Your task to perform on an android device: Open Wikipedia Image 0: 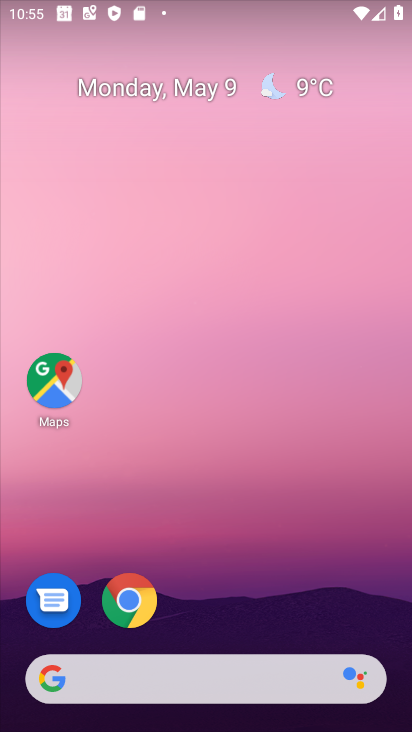
Step 0: drag from (323, 581) to (348, 169)
Your task to perform on an android device: Open Wikipedia Image 1: 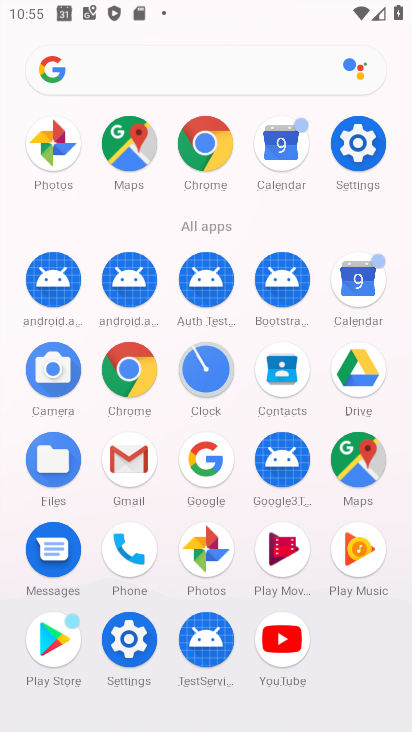
Step 1: click (202, 145)
Your task to perform on an android device: Open Wikipedia Image 2: 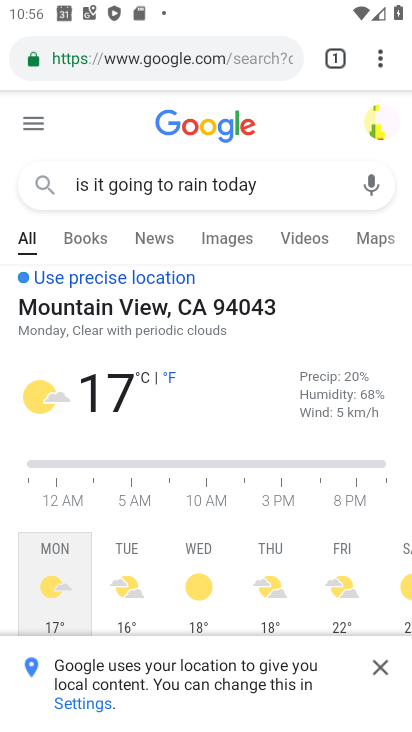
Step 2: click (344, 59)
Your task to perform on an android device: Open Wikipedia Image 3: 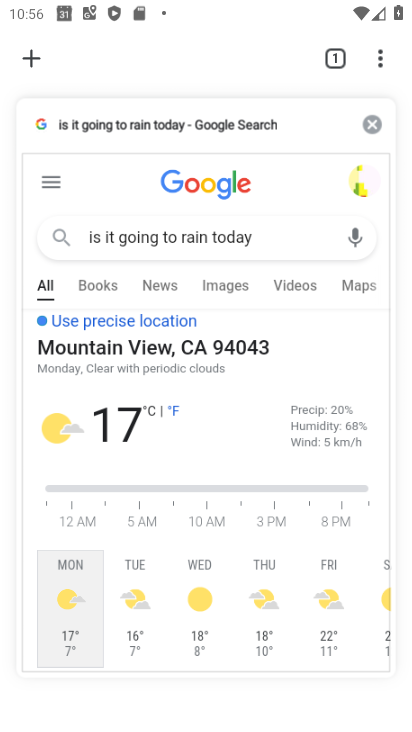
Step 3: click (33, 61)
Your task to perform on an android device: Open Wikipedia Image 4: 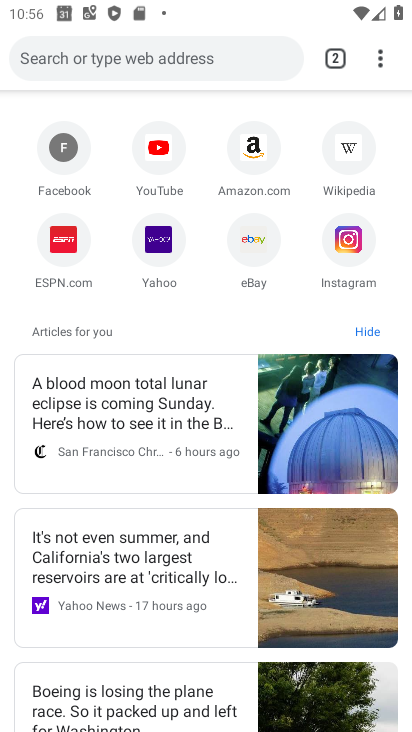
Step 4: click (361, 134)
Your task to perform on an android device: Open Wikipedia Image 5: 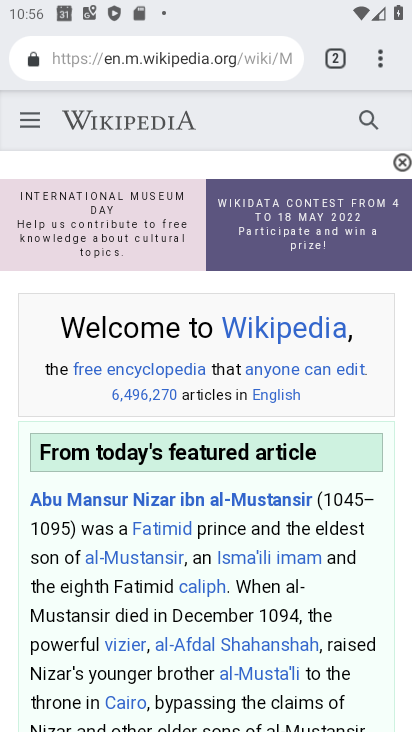
Step 5: task complete